Your task to perform on an android device: Open Google Chrome and open the bookmarks view Image 0: 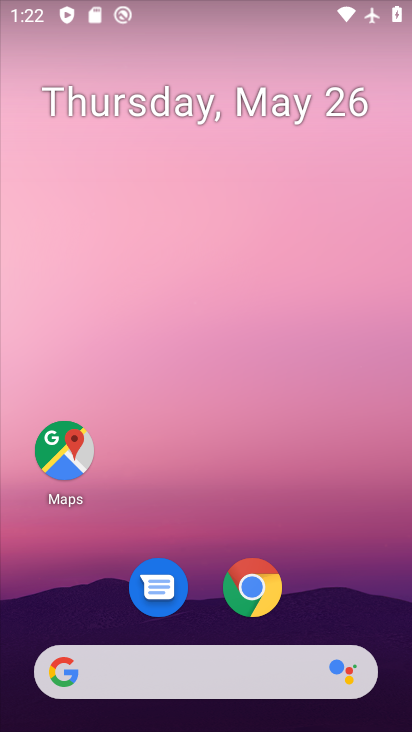
Step 0: drag from (377, 545) to (280, 30)
Your task to perform on an android device: Open Google Chrome and open the bookmarks view Image 1: 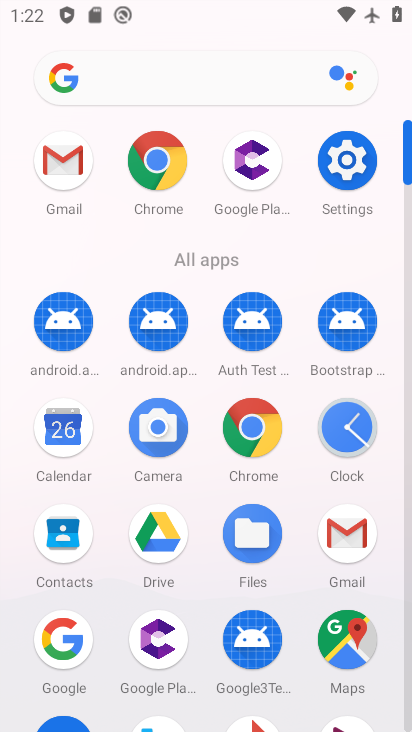
Step 1: click (250, 422)
Your task to perform on an android device: Open Google Chrome and open the bookmarks view Image 2: 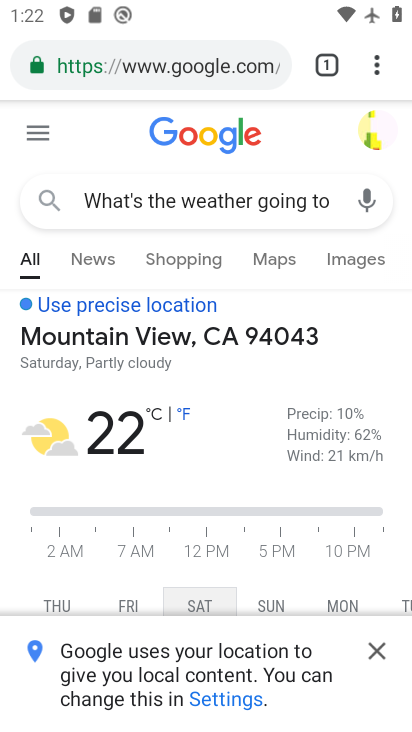
Step 2: task complete